Your task to perform on an android device: remove spam from my inbox in the gmail app Image 0: 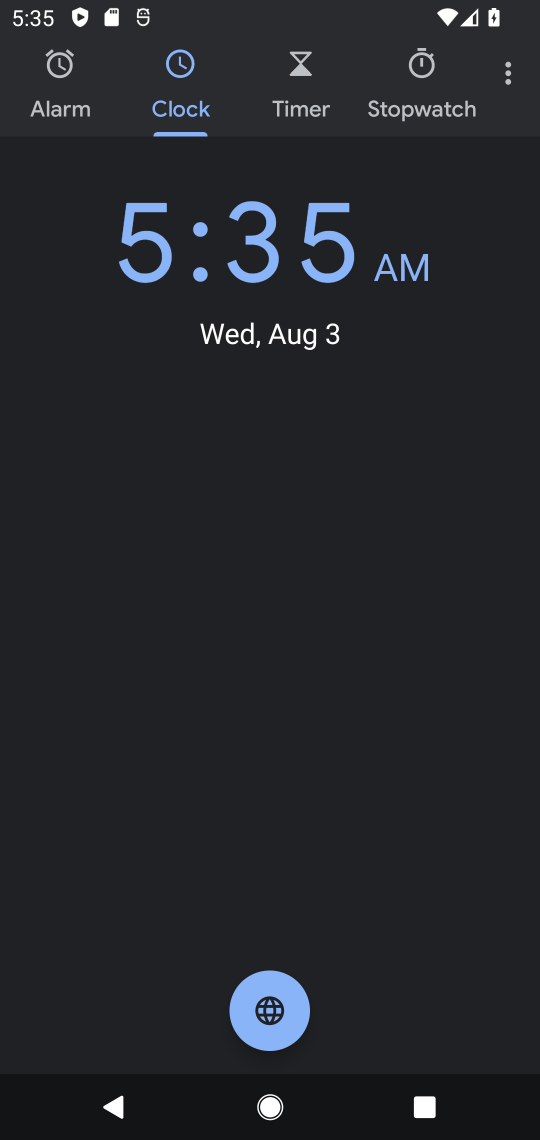
Step 0: press home button
Your task to perform on an android device: remove spam from my inbox in the gmail app Image 1: 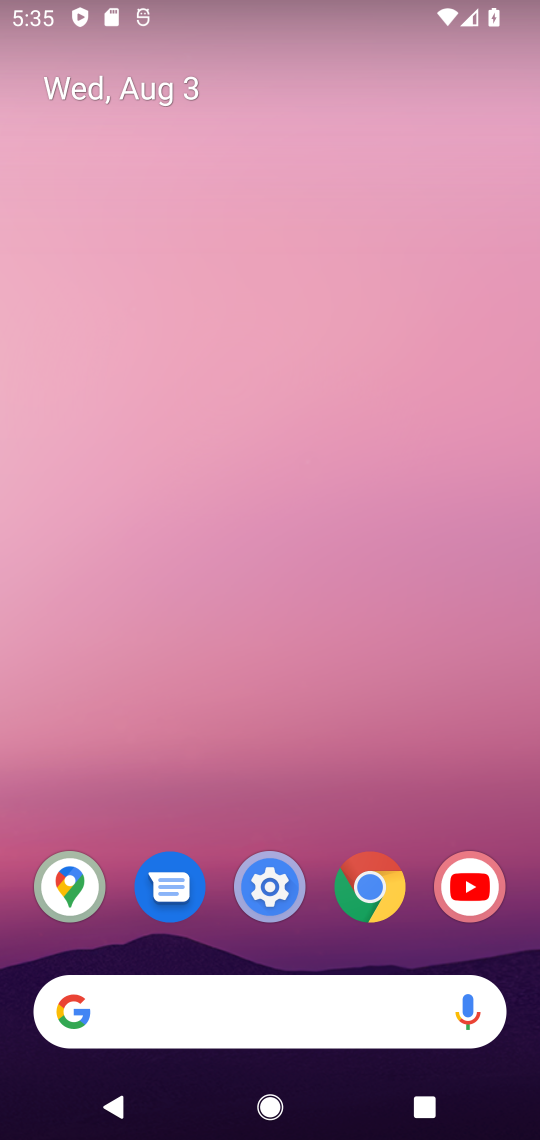
Step 1: drag from (311, 964) to (269, 58)
Your task to perform on an android device: remove spam from my inbox in the gmail app Image 2: 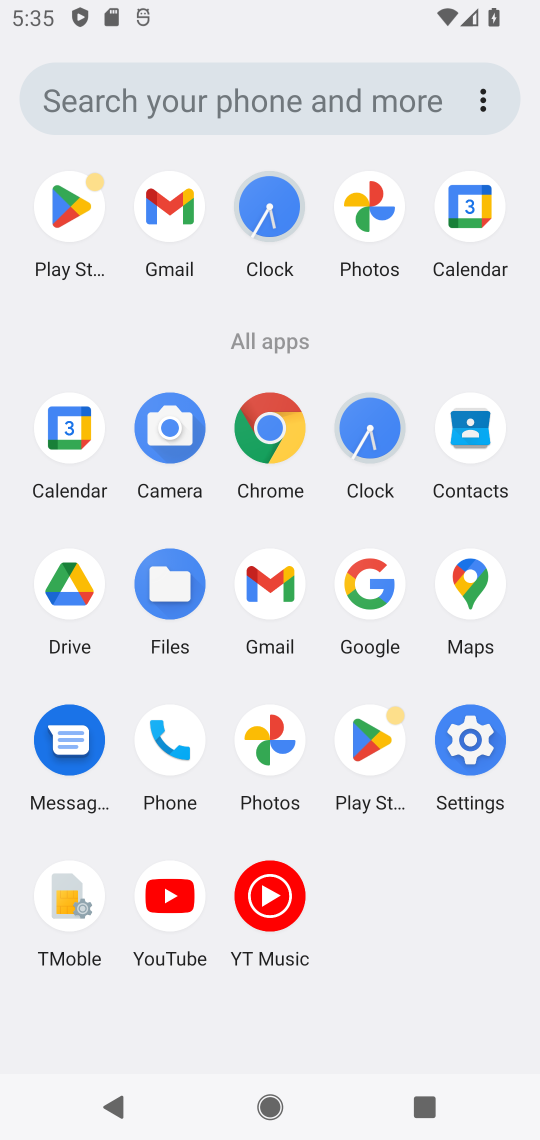
Step 2: click (290, 588)
Your task to perform on an android device: remove spam from my inbox in the gmail app Image 3: 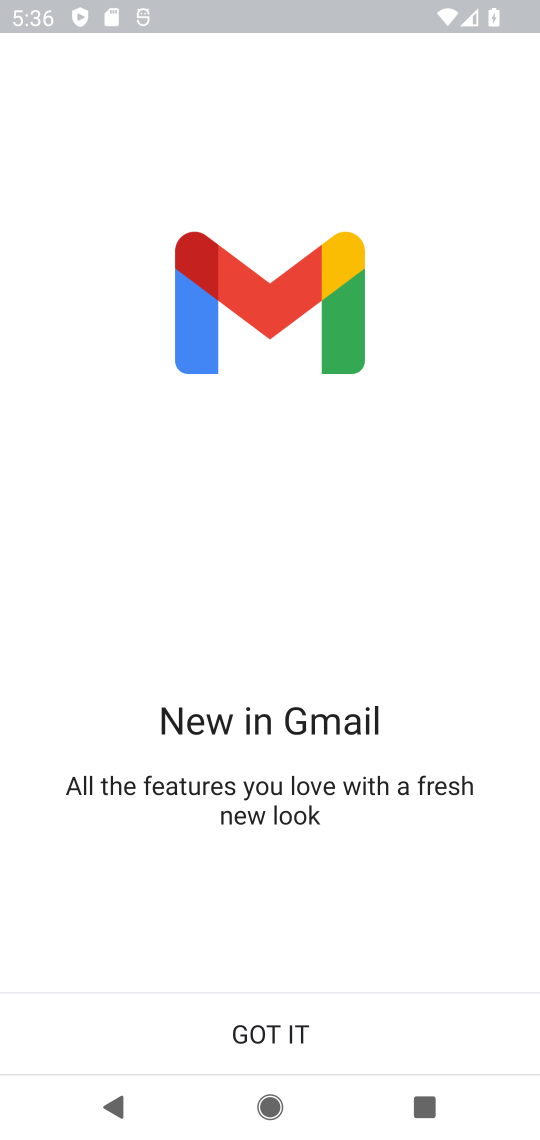
Step 3: click (350, 1037)
Your task to perform on an android device: remove spam from my inbox in the gmail app Image 4: 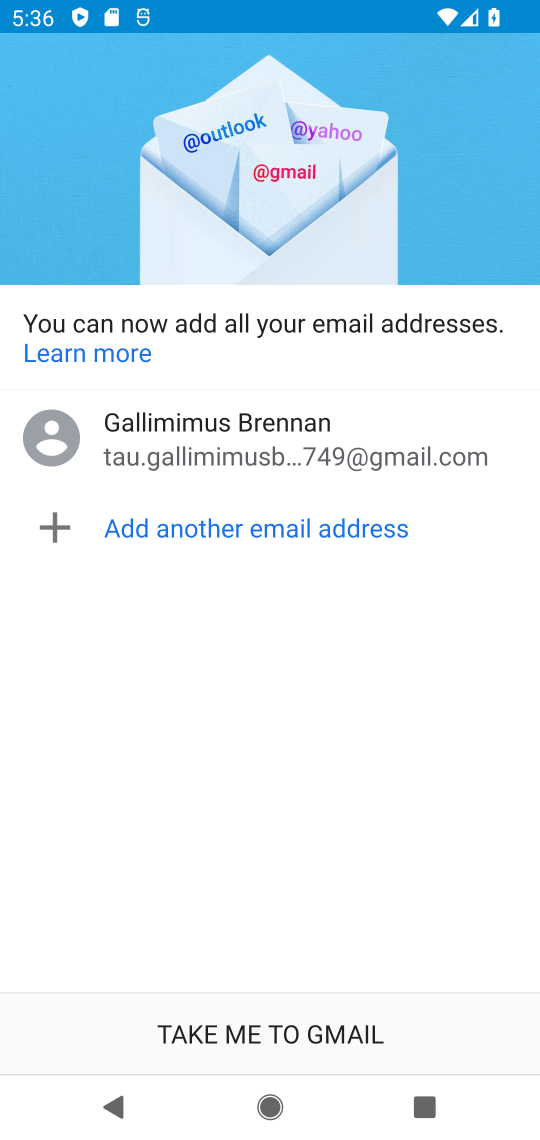
Step 4: click (348, 1033)
Your task to perform on an android device: remove spam from my inbox in the gmail app Image 5: 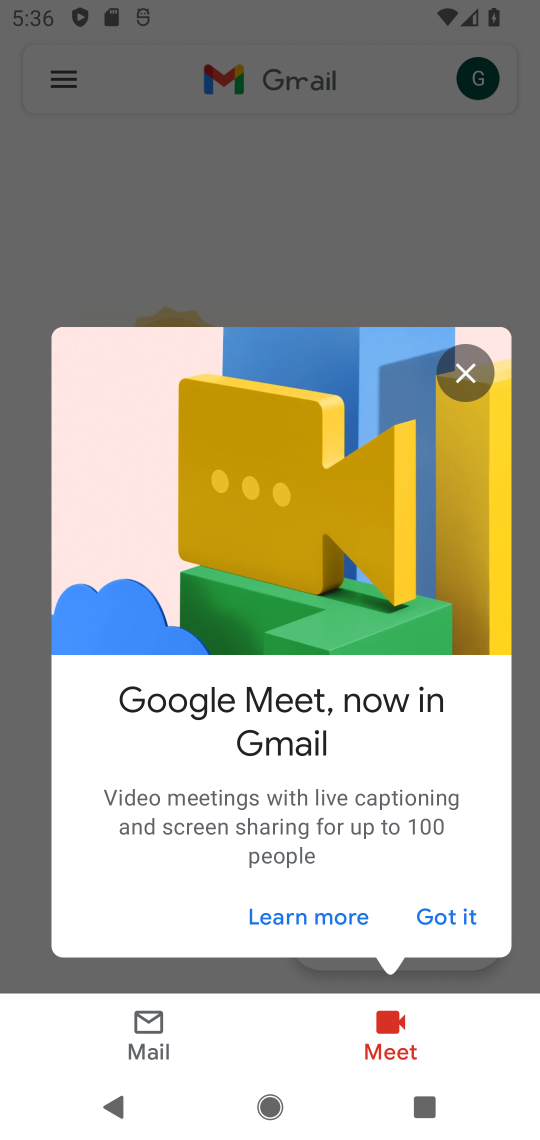
Step 5: click (470, 914)
Your task to perform on an android device: remove spam from my inbox in the gmail app Image 6: 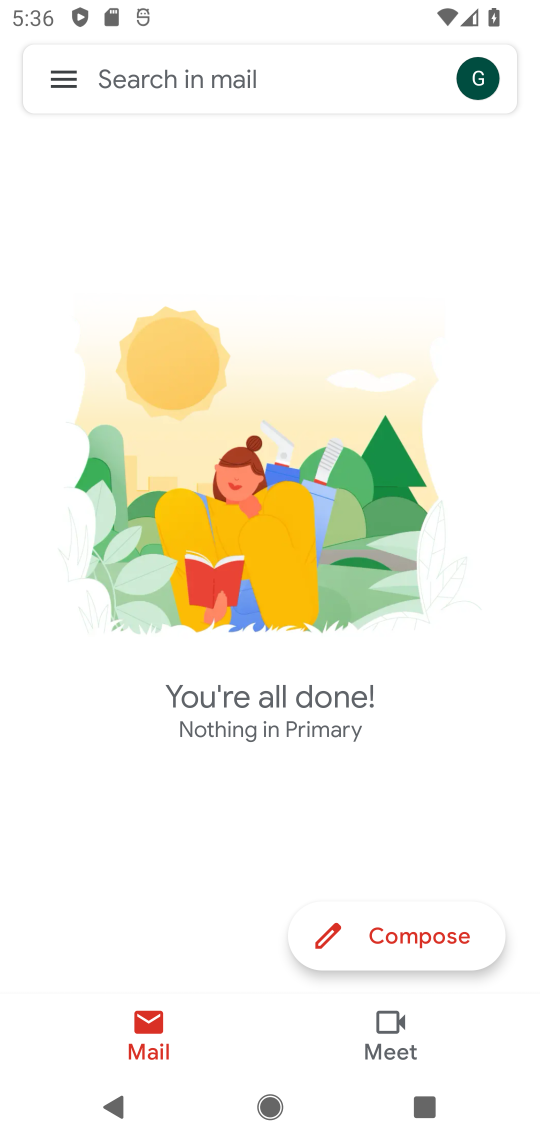
Step 6: click (48, 84)
Your task to perform on an android device: remove spam from my inbox in the gmail app Image 7: 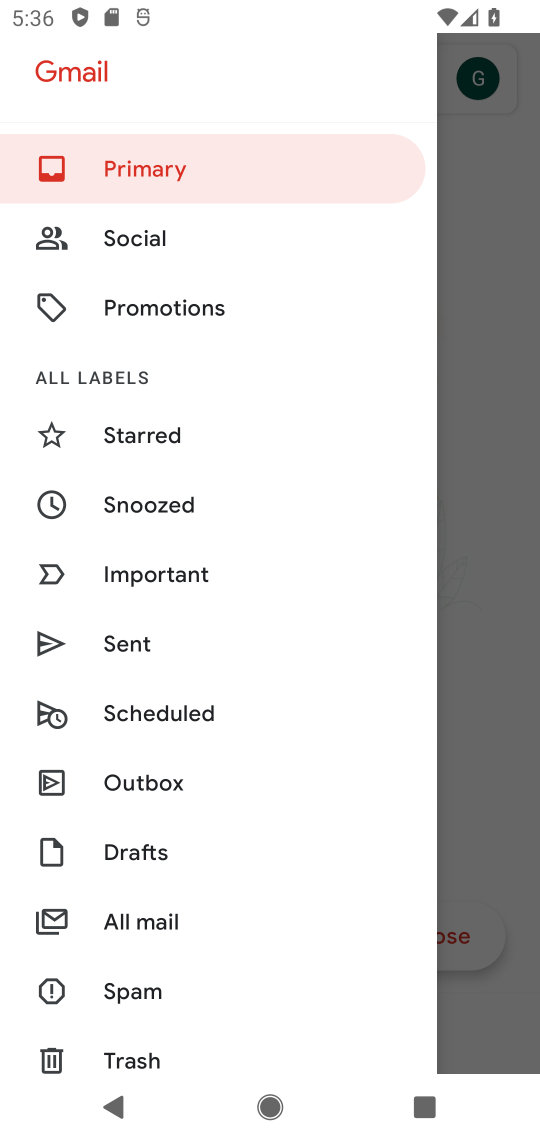
Step 7: click (163, 976)
Your task to perform on an android device: remove spam from my inbox in the gmail app Image 8: 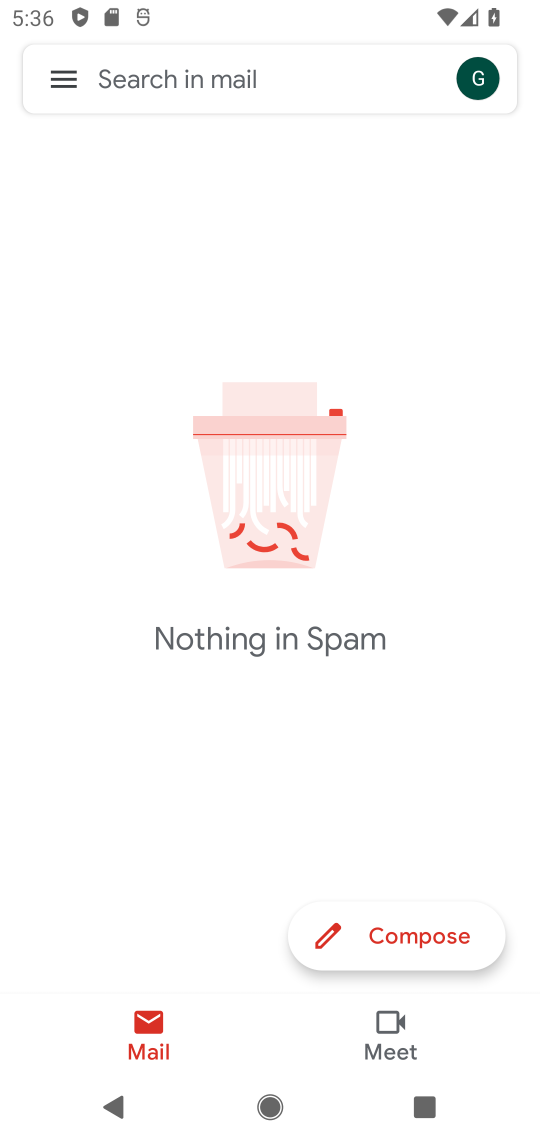
Step 8: task complete